Your task to perform on an android device: read, delete, or share a saved page in the chrome app Image 0: 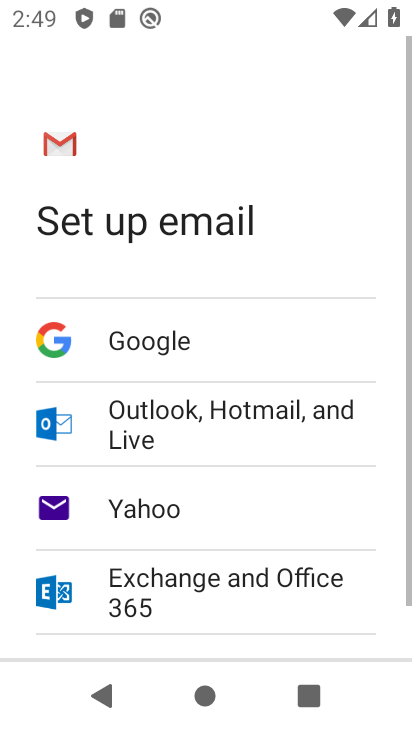
Step 0: press home button
Your task to perform on an android device: read, delete, or share a saved page in the chrome app Image 1: 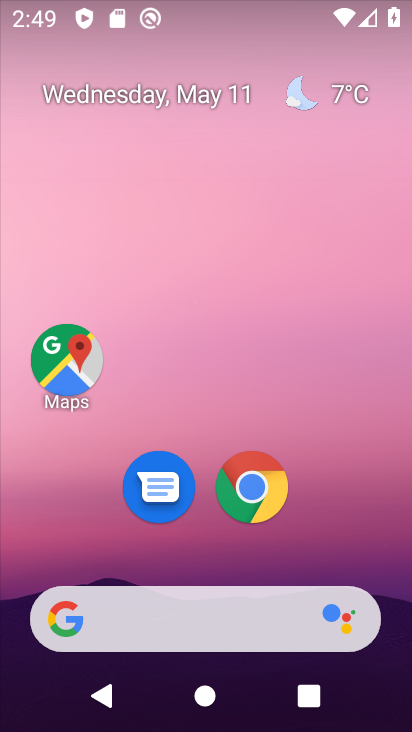
Step 1: drag from (328, 590) to (342, 22)
Your task to perform on an android device: read, delete, or share a saved page in the chrome app Image 2: 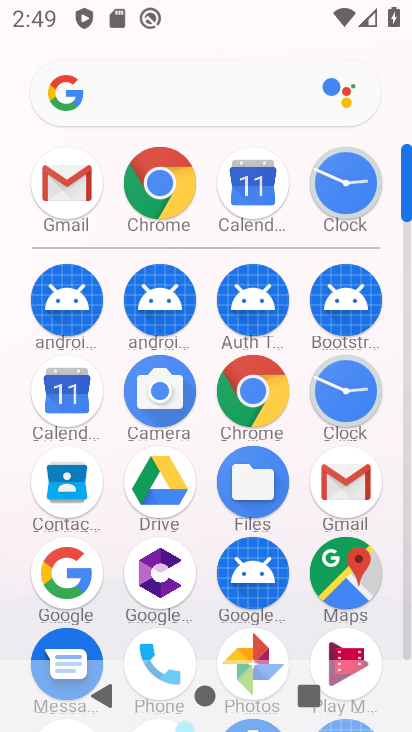
Step 2: drag from (307, 639) to (300, 262)
Your task to perform on an android device: read, delete, or share a saved page in the chrome app Image 3: 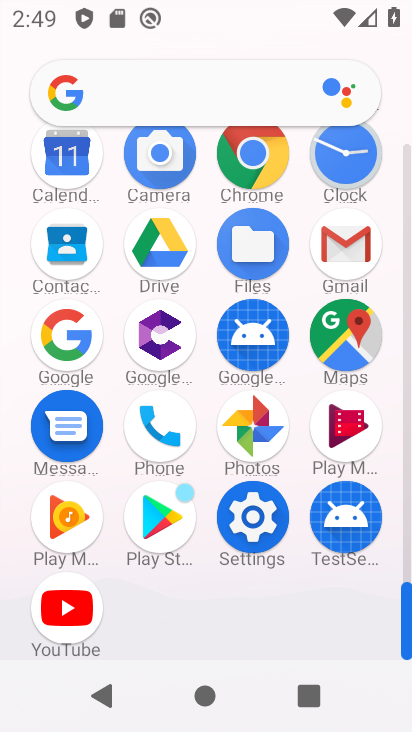
Step 3: click (263, 144)
Your task to perform on an android device: read, delete, or share a saved page in the chrome app Image 4: 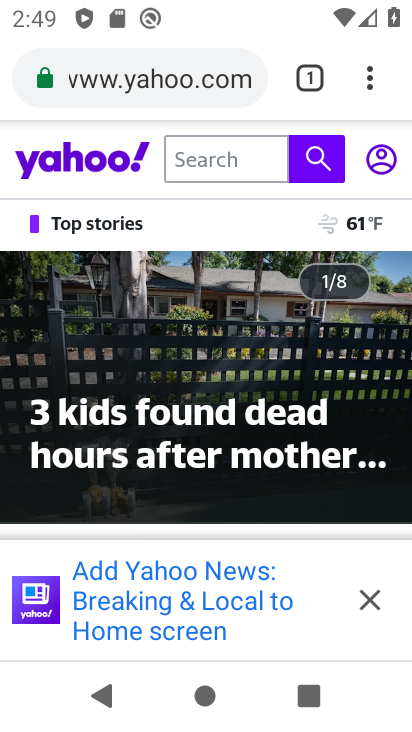
Step 4: click (366, 76)
Your task to perform on an android device: read, delete, or share a saved page in the chrome app Image 5: 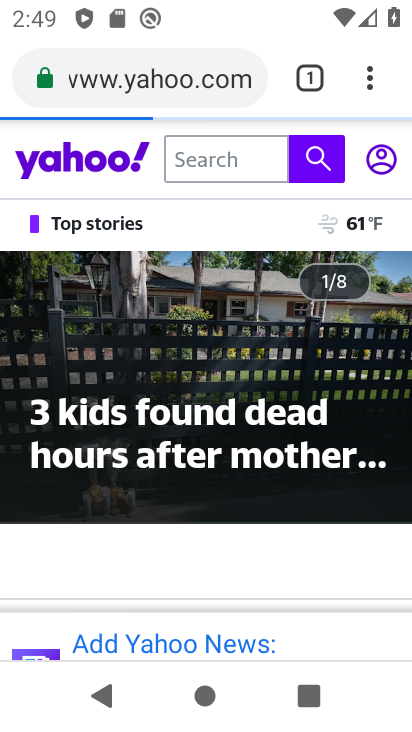
Step 5: task complete